Your task to perform on an android device: see sites visited before in the chrome app Image 0: 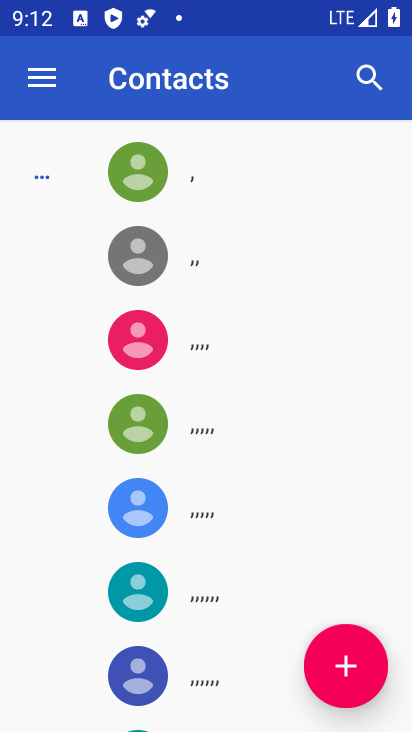
Step 0: press home button
Your task to perform on an android device: see sites visited before in the chrome app Image 1: 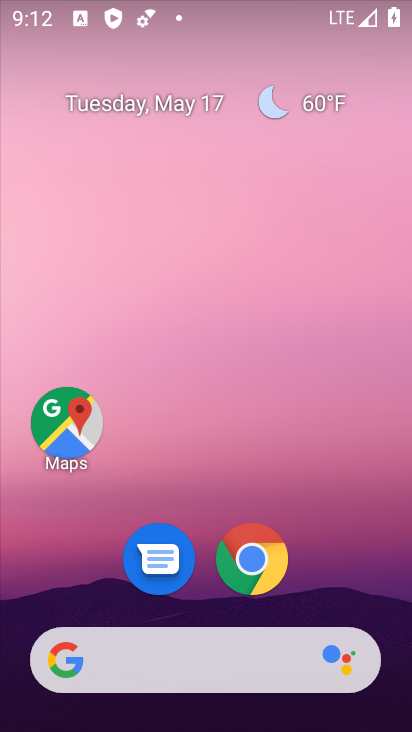
Step 1: click (250, 581)
Your task to perform on an android device: see sites visited before in the chrome app Image 2: 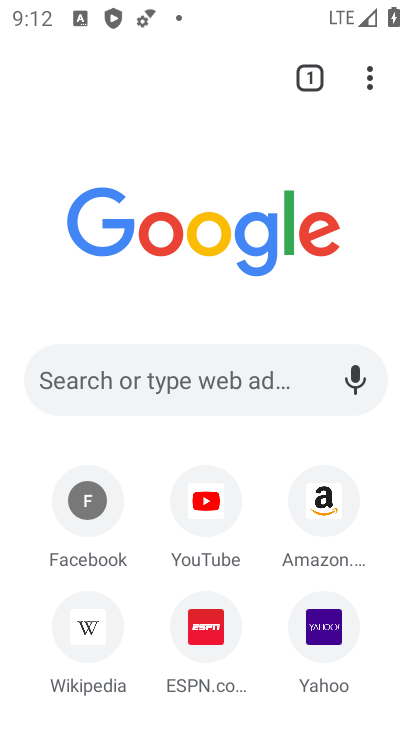
Step 2: click (375, 73)
Your task to perform on an android device: see sites visited before in the chrome app Image 3: 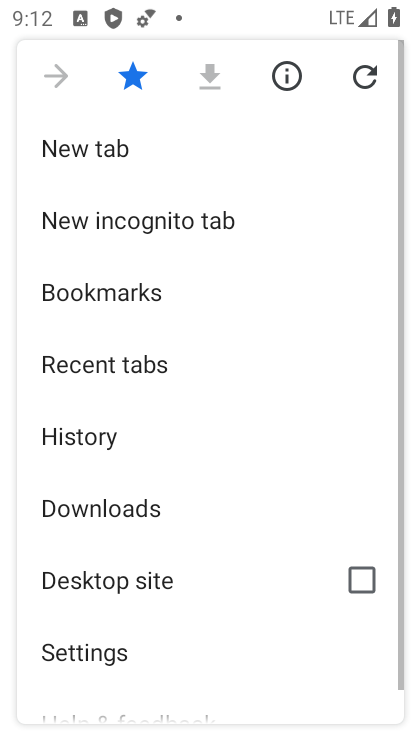
Step 3: drag from (180, 619) to (205, 382)
Your task to perform on an android device: see sites visited before in the chrome app Image 4: 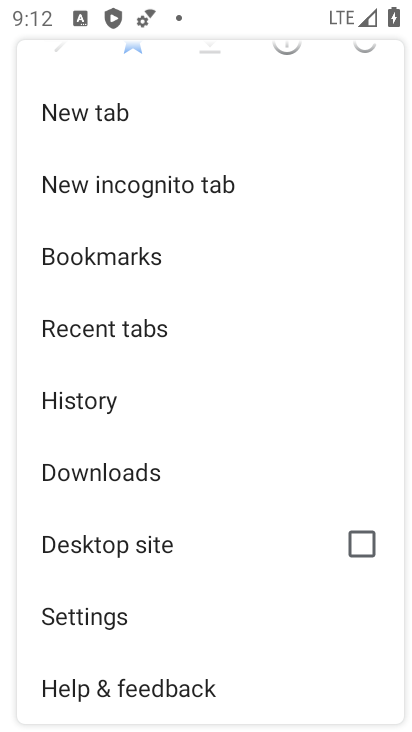
Step 4: click (109, 323)
Your task to perform on an android device: see sites visited before in the chrome app Image 5: 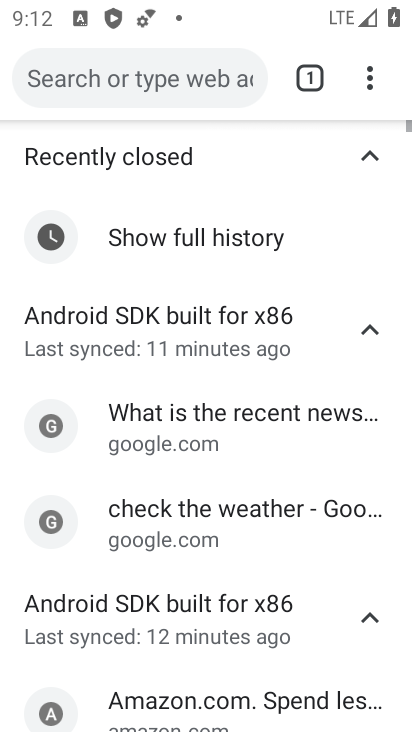
Step 5: task complete